Your task to perform on an android device: Find coffee shops on Maps Image 0: 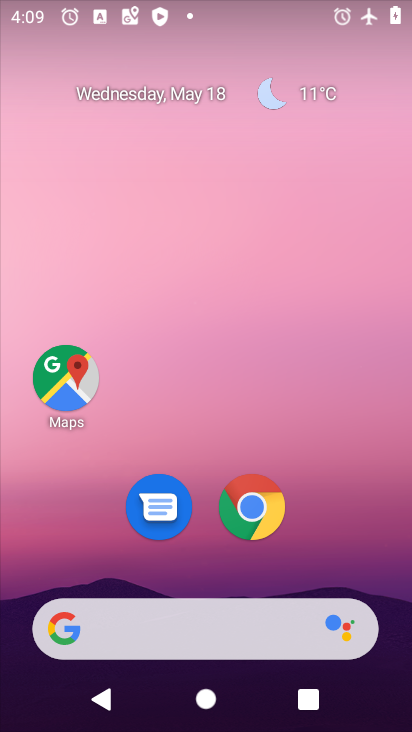
Step 0: click (61, 377)
Your task to perform on an android device: Find coffee shops on Maps Image 1: 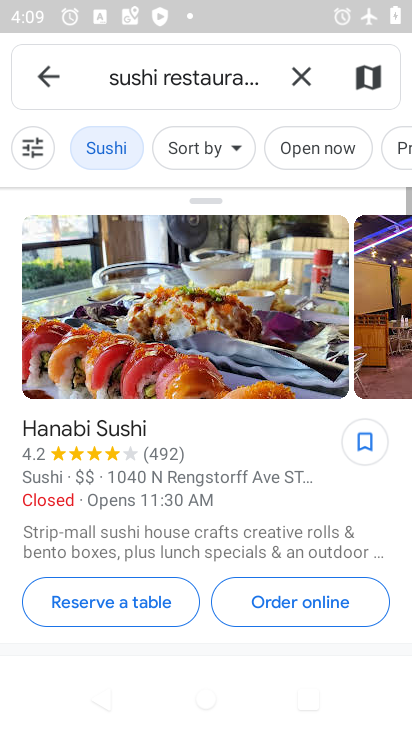
Step 1: click (297, 74)
Your task to perform on an android device: Find coffee shops on Maps Image 2: 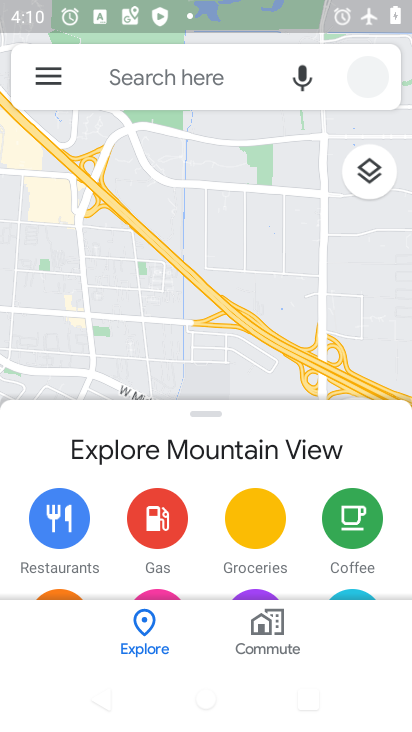
Step 2: click (183, 79)
Your task to perform on an android device: Find coffee shops on Maps Image 3: 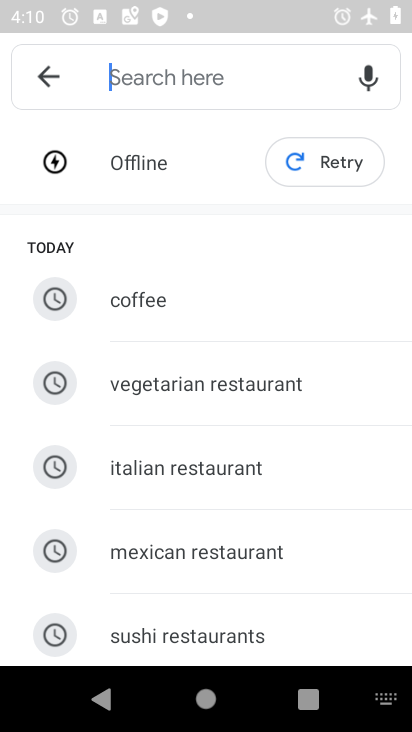
Step 3: type "coffee shop"
Your task to perform on an android device: Find coffee shops on Maps Image 4: 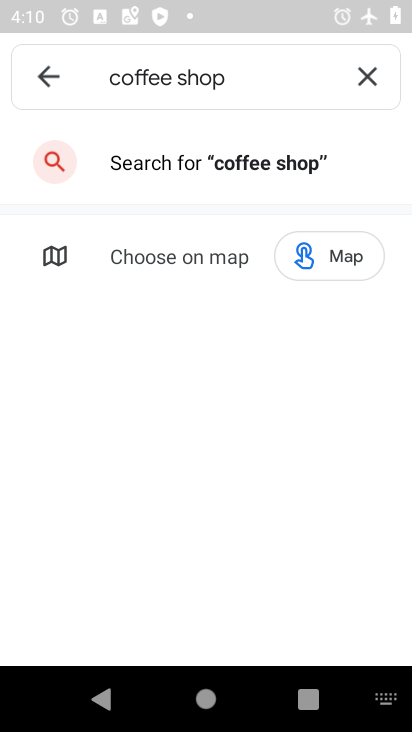
Step 4: click (235, 160)
Your task to perform on an android device: Find coffee shops on Maps Image 5: 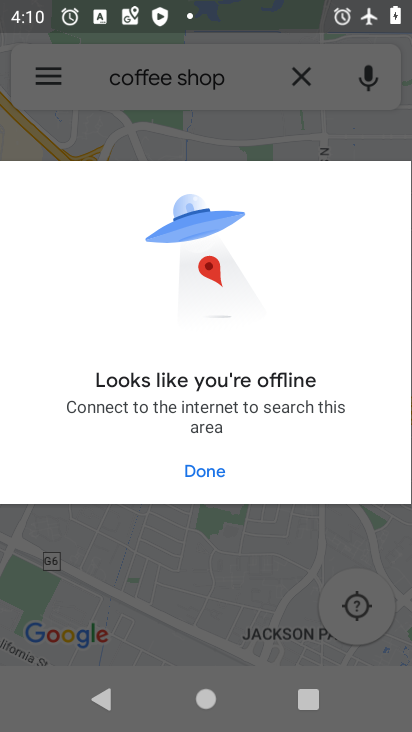
Step 5: click (197, 460)
Your task to perform on an android device: Find coffee shops on Maps Image 6: 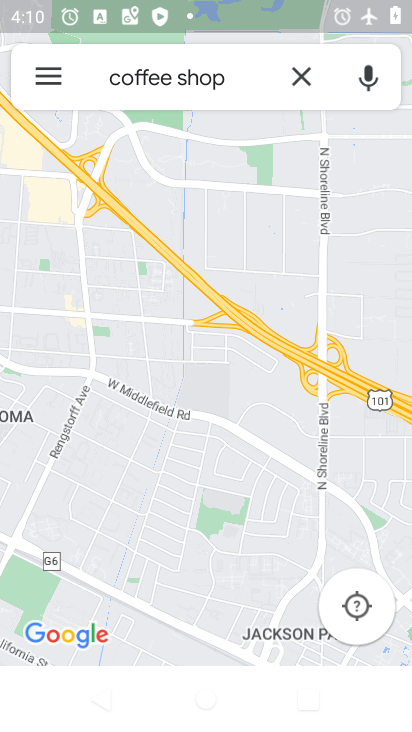
Step 6: task complete